Your task to perform on an android device: Open notification settings Image 0: 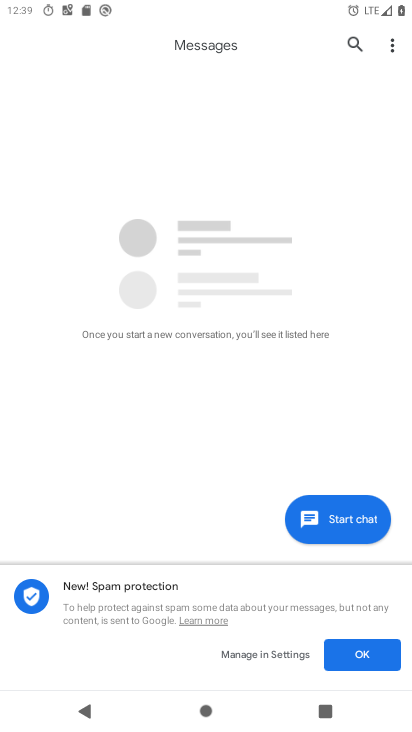
Step 0: press home button
Your task to perform on an android device: Open notification settings Image 1: 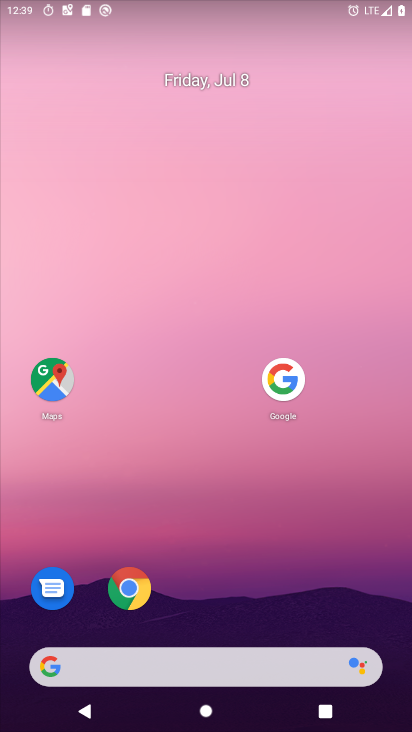
Step 1: drag from (172, 662) to (296, 128)
Your task to perform on an android device: Open notification settings Image 2: 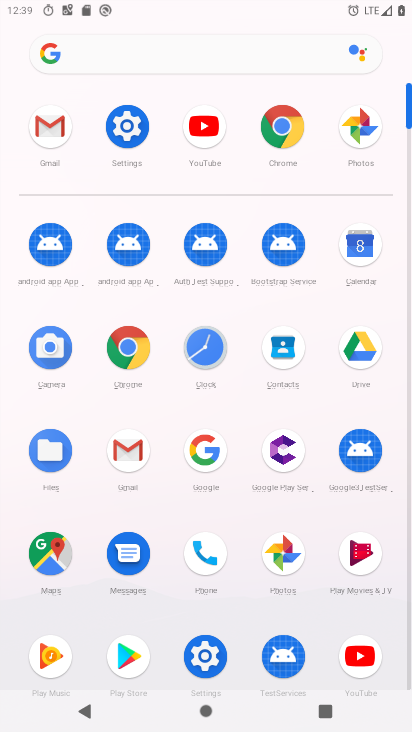
Step 2: click (119, 129)
Your task to perform on an android device: Open notification settings Image 3: 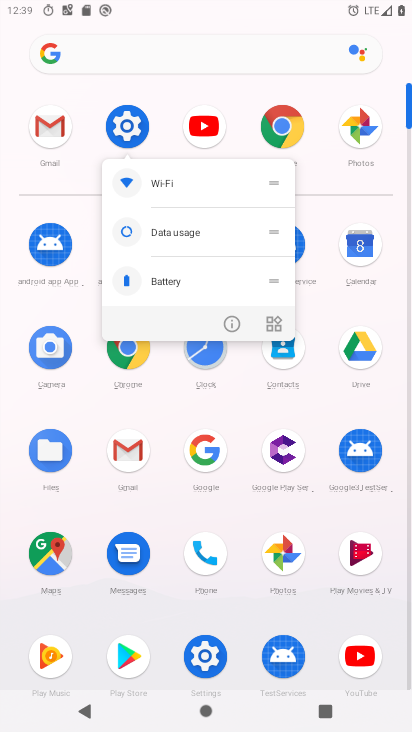
Step 3: click (128, 129)
Your task to perform on an android device: Open notification settings Image 4: 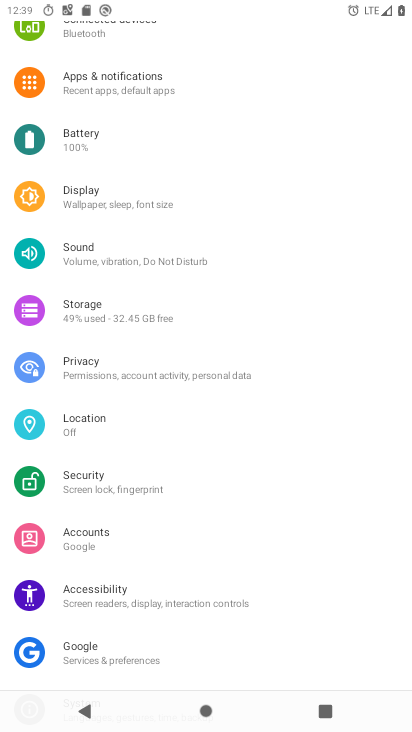
Step 4: click (122, 79)
Your task to perform on an android device: Open notification settings Image 5: 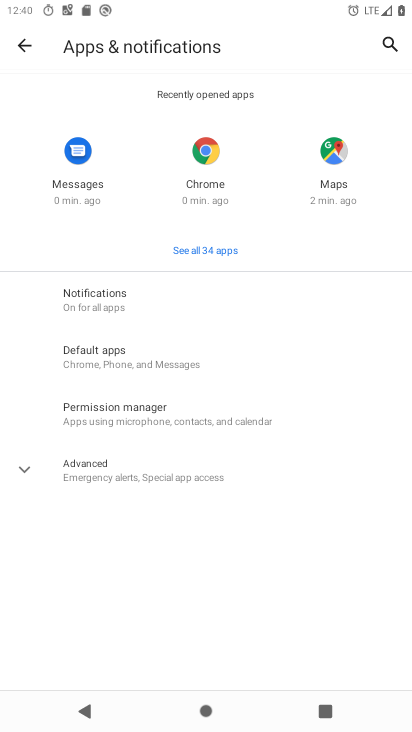
Step 5: click (97, 298)
Your task to perform on an android device: Open notification settings Image 6: 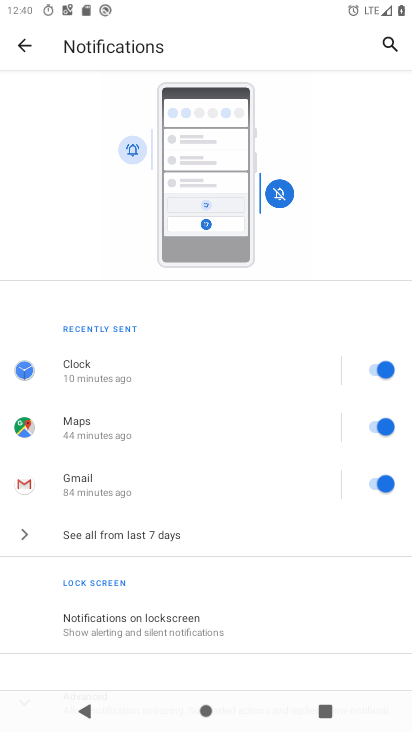
Step 6: task complete